Your task to perform on an android device: Search for Italian restaurants on Maps Image 0: 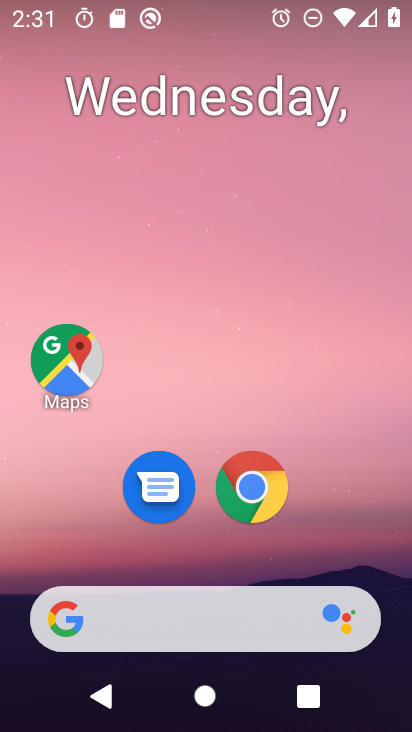
Step 0: click (68, 370)
Your task to perform on an android device: Search for Italian restaurants on Maps Image 1: 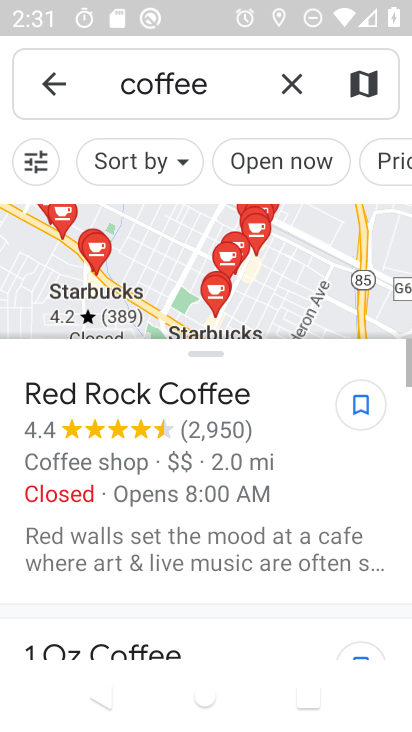
Step 1: click (283, 77)
Your task to perform on an android device: Search for Italian restaurants on Maps Image 2: 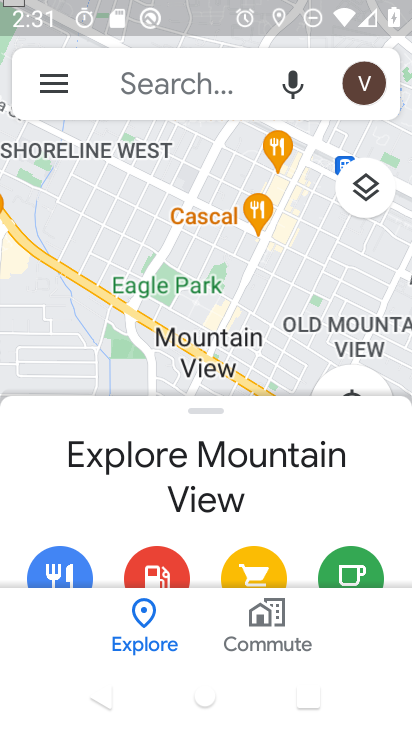
Step 2: click (205, 86)
Your task to perform on an android device: Search for Italian restaurants on Maps Image 3: 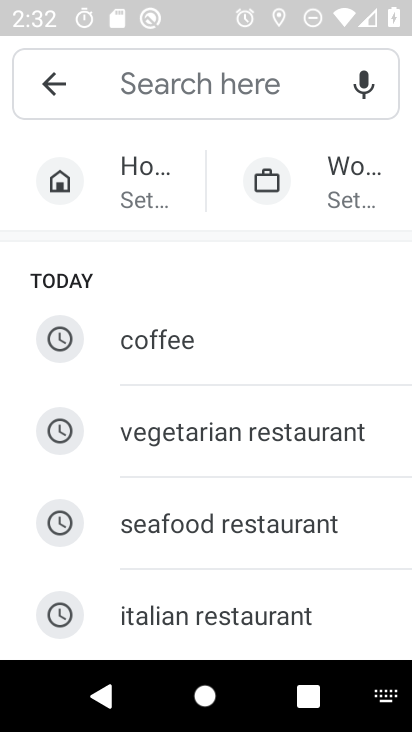
Step 3: type "italian "
Your task to perform on an android device: Search for Italian restaurants on Maps Image 4: 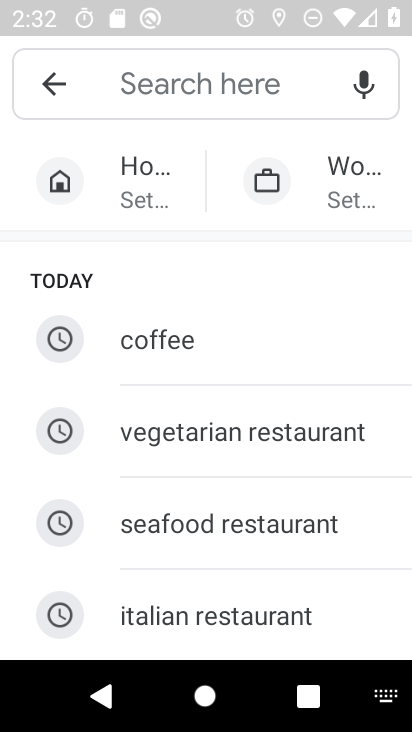
Step 4: click (168, 619)
Your task to perform on an android device: Search for Italian restaurants on Maps Image 5: 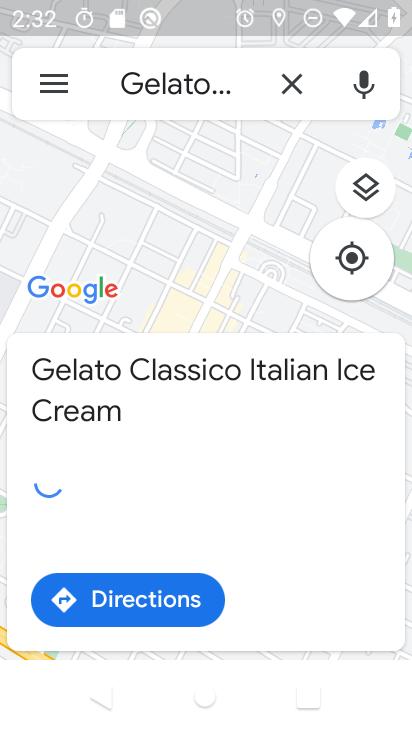
Step 5: click (289, 87)
Your task to perform on an android device: Search for Italian restaurants on Maps Image 6: 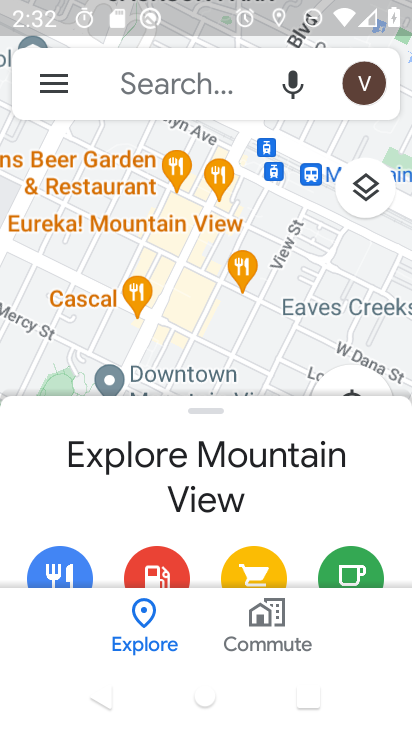
Step 6: click (181, 80)
Your task to perform on an android device: Search for Italian restaurants on Maps Image 7: 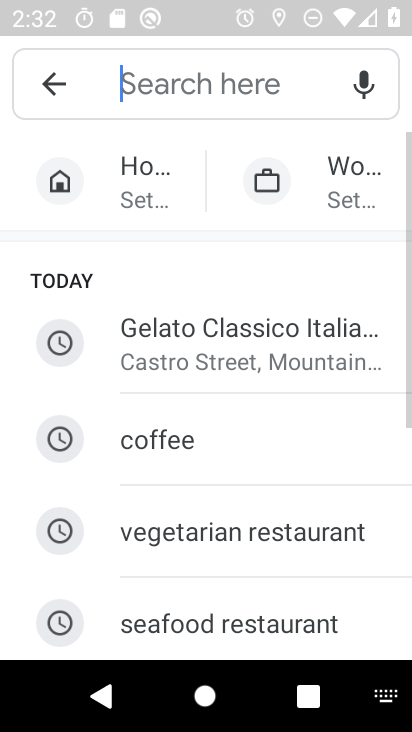
Step 7: drag from (205, 579) to (288, 146)
Your task to perform on an android device: Search for Italian restaurants on Maps Image 8: 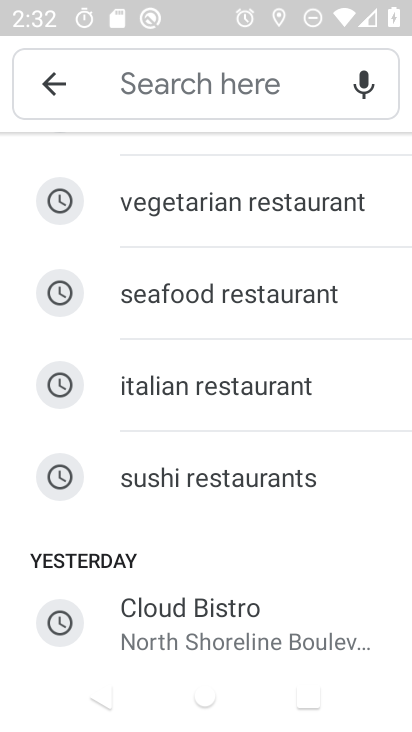
Step 8: click (194, 392)
Your task to perform on an android device: Search for Italian restaurants on Maps Image 9: 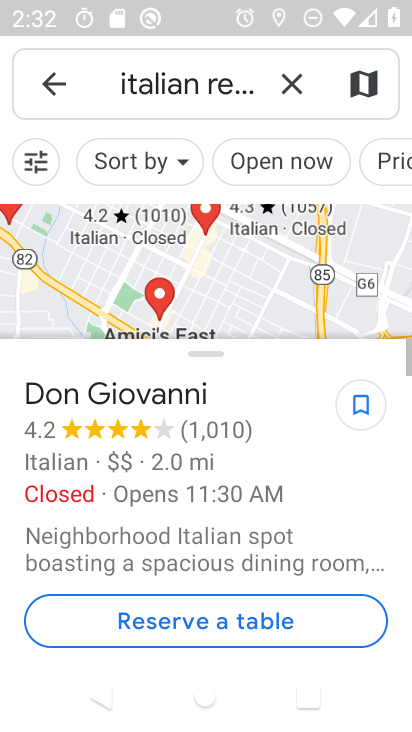
Step 9: task complete